Your task to perform on an android device: change the clock display to analog Image 0: 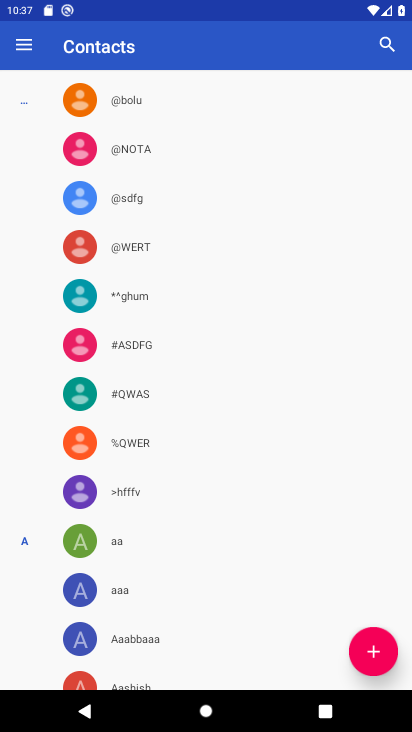
Step 0: press home button
Your task to perform on an android device: change the clock display to analog Image 1: 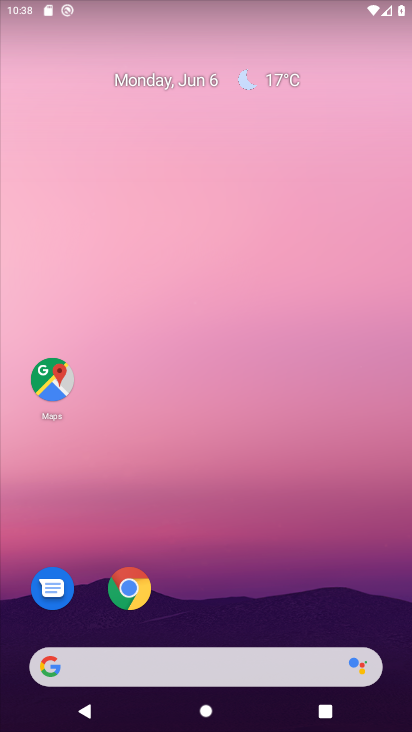
Step 1: drag from (222, 626) to (351, 172)
Your task to perform on an android device: change the clock display to analog Image 2: 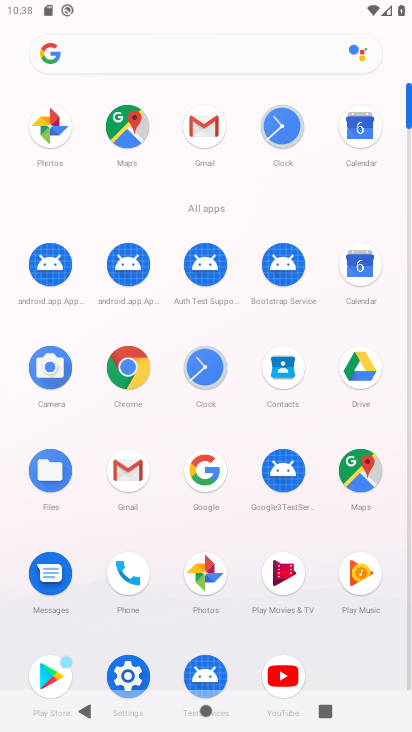
Step 2: click (205, 361)
Your task to perform on an android device: change the clock display to analog Image 3: 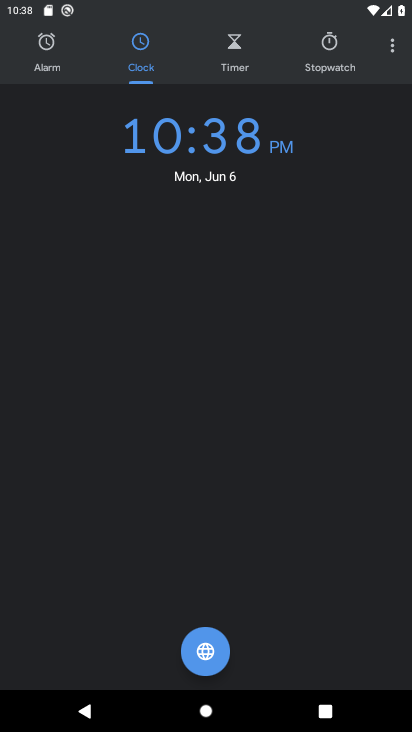
Step 3: click (205, 371)
Your task to perform on an android device: change the clock display to analog Image 4: 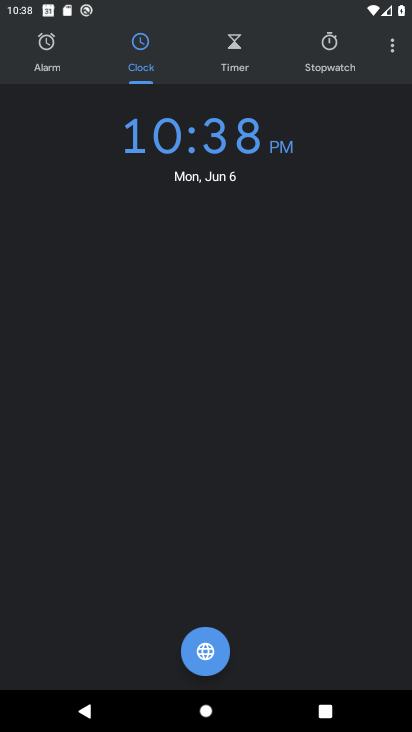
Step 4: click (385, 47)
Your task to perform on an android device: change the clock display to analog Image 5: 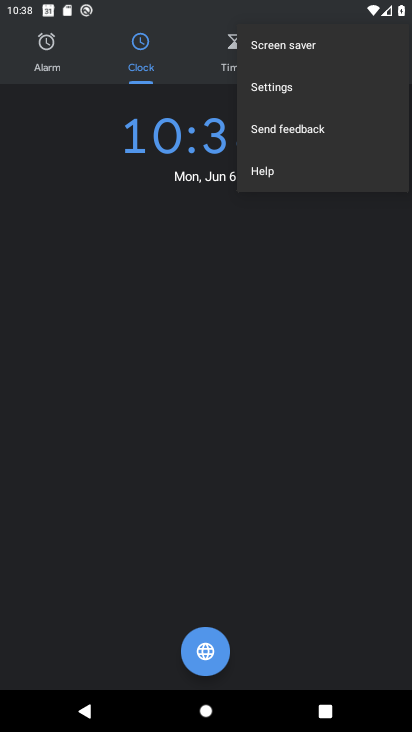
Step 5: click (357, 70)
Your task to perform on an android device: change the clock display to analog Image 6: 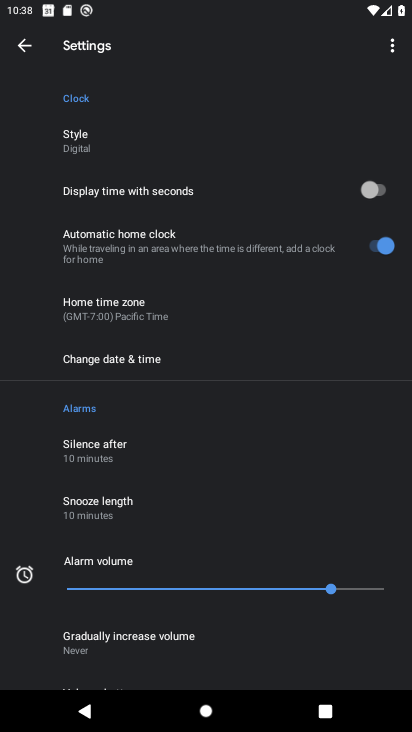
Step 6: click (164, 124)
Your task to perform on an android device: change the clock display to analog Image 7: 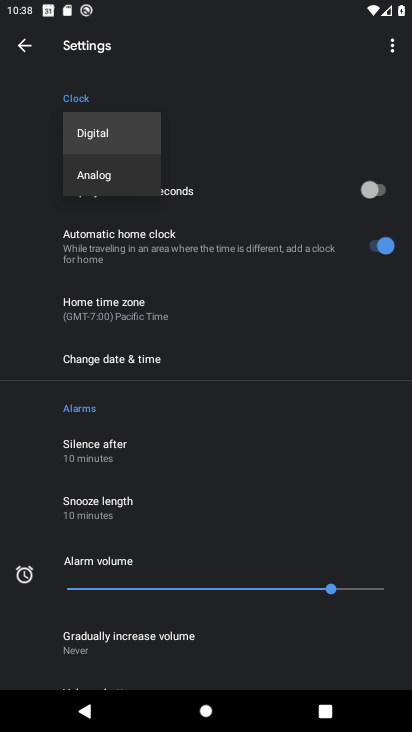
Step 7: click (138, 185)
Your task to perform on an android device: change the clock display to analog Image 8: 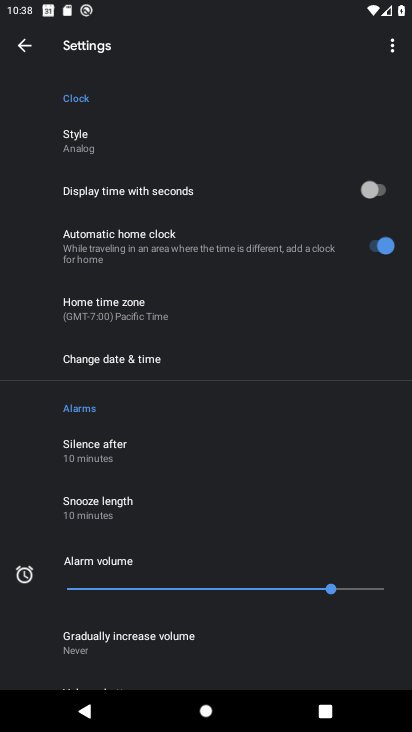
Step 8: task complete